Your task to perform on an android device: toggle wifi Image 0: 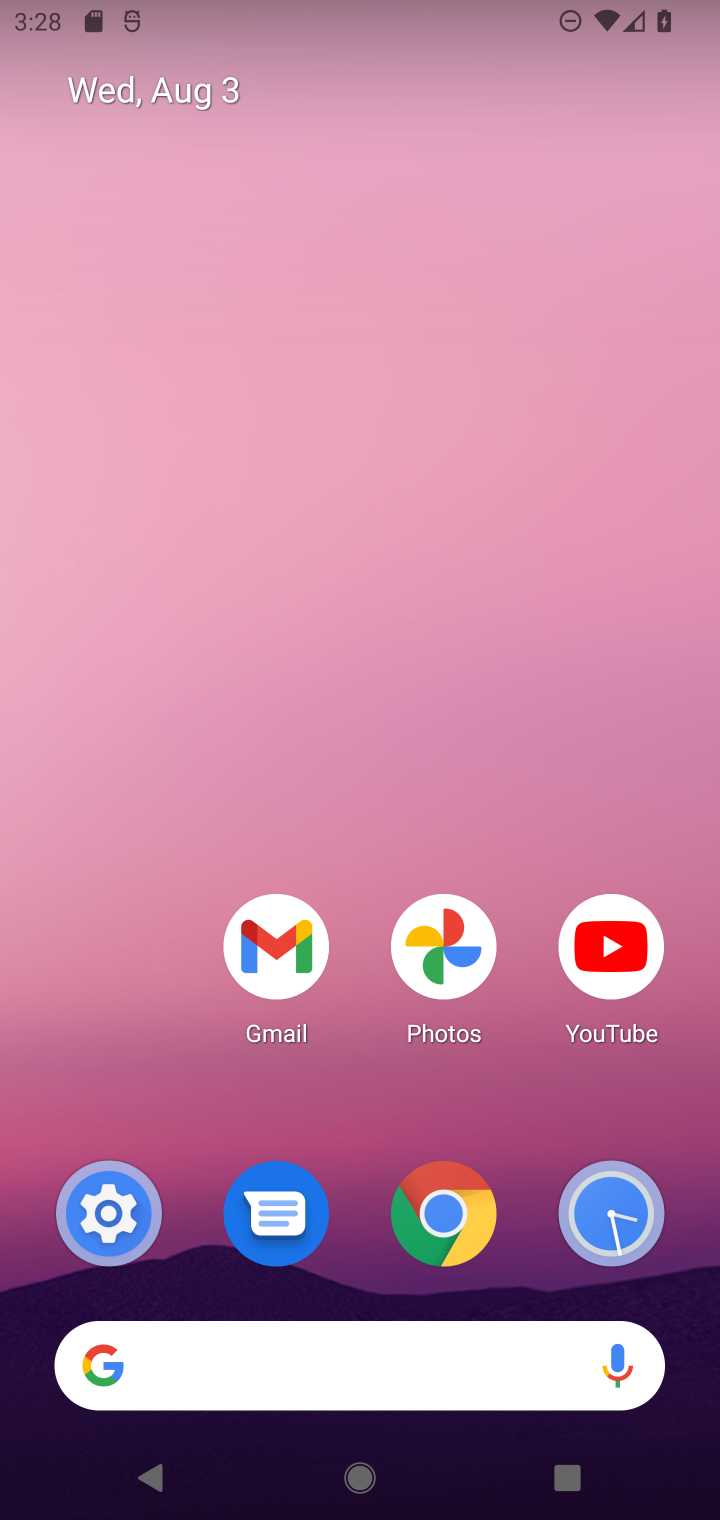
Step 0: drag from (282, 1276) to (353, 924)
Your task to perform on an android device: toggle wifi Image 1: 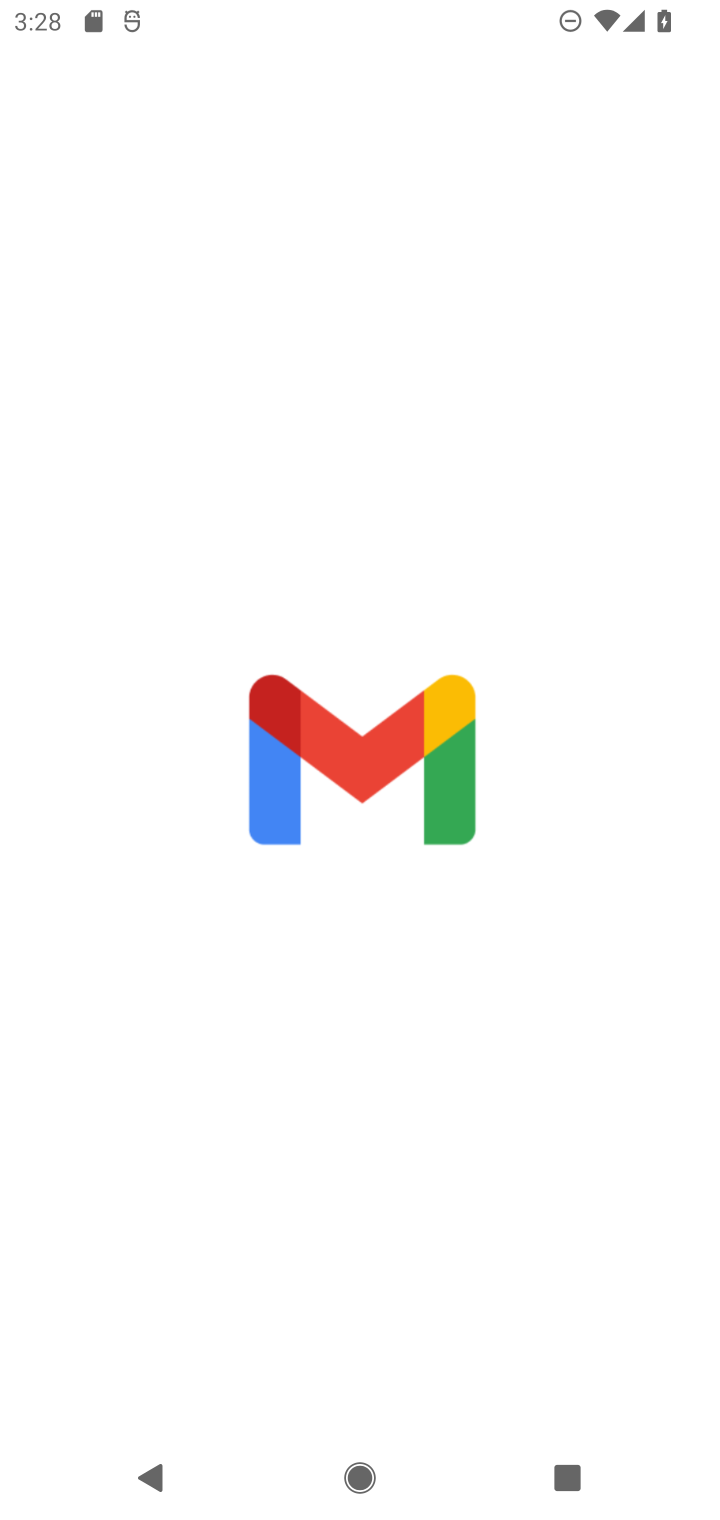
Step 1: press home button
Your task to perform on an android device: toggle wifi Image 2: 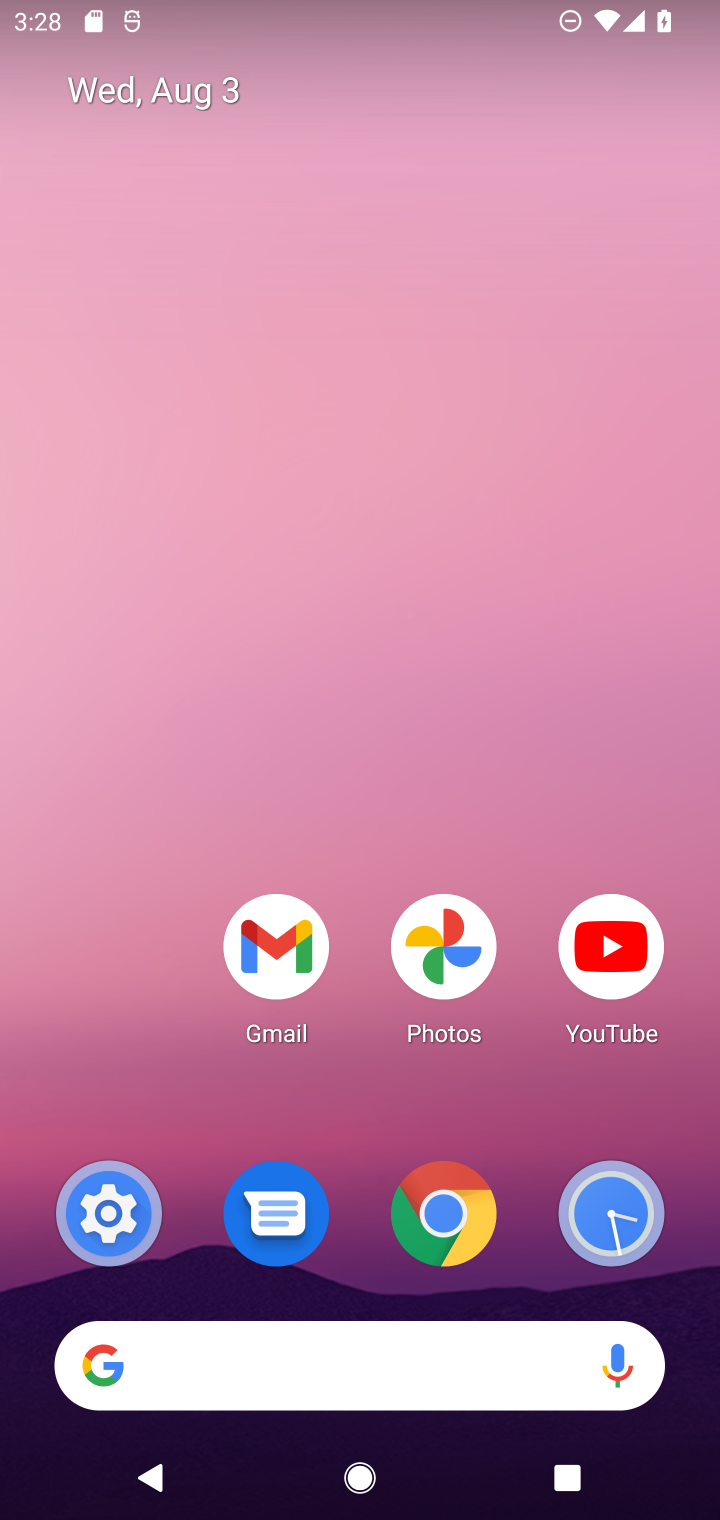
Step 2: drag from (315, 13) to (288, 902)
Your task to perform on an android device: toggle wifi Image 3: 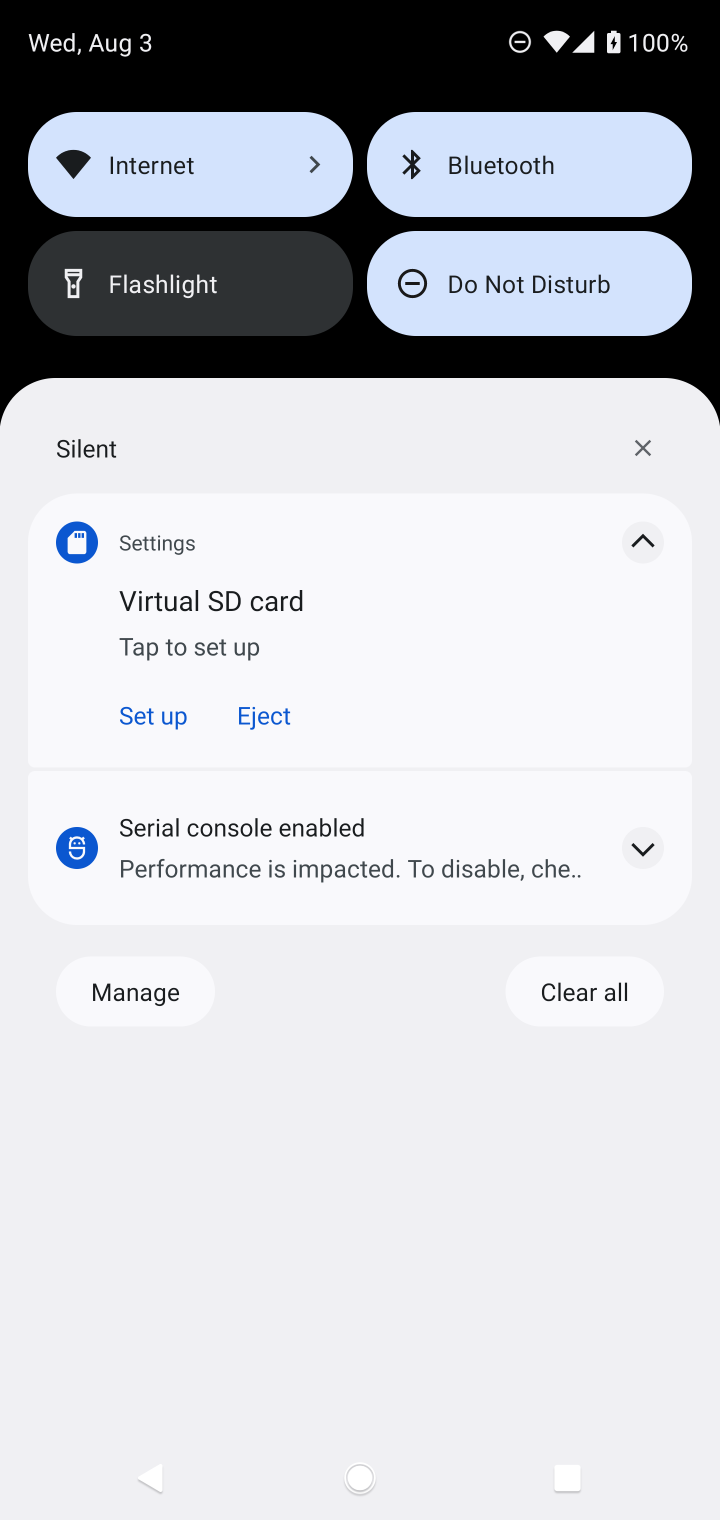
Step 3: drag from (302, 367) to (291, 1103)
Your task to perform on an android device: toggle wifi Image 4: 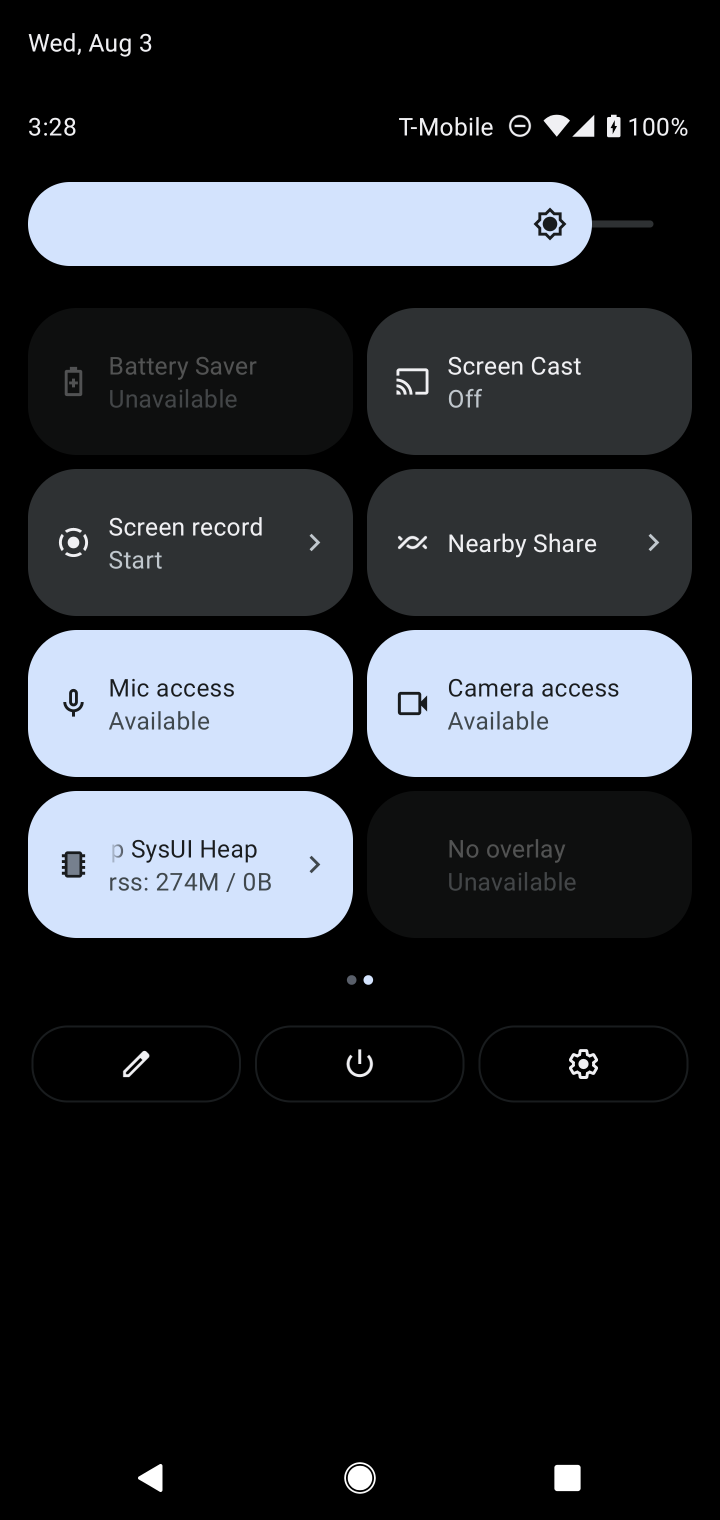
Step 4: drag from (85, 765) to (646, 979)
Your task to perform on an android device: toggle wifi Image 5: 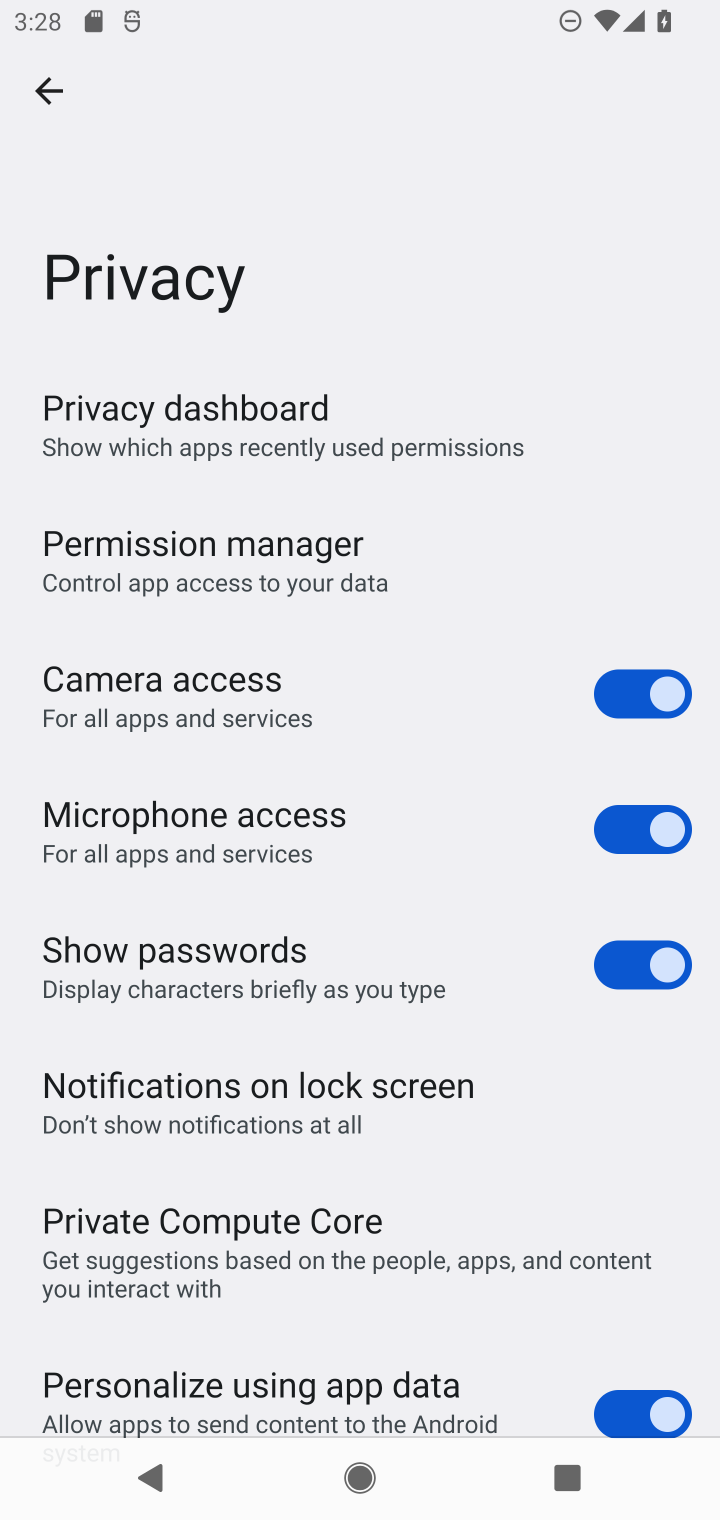
Step 5: click (41, 101)
Your task to perform on an android device: toggle wifi Image 6: 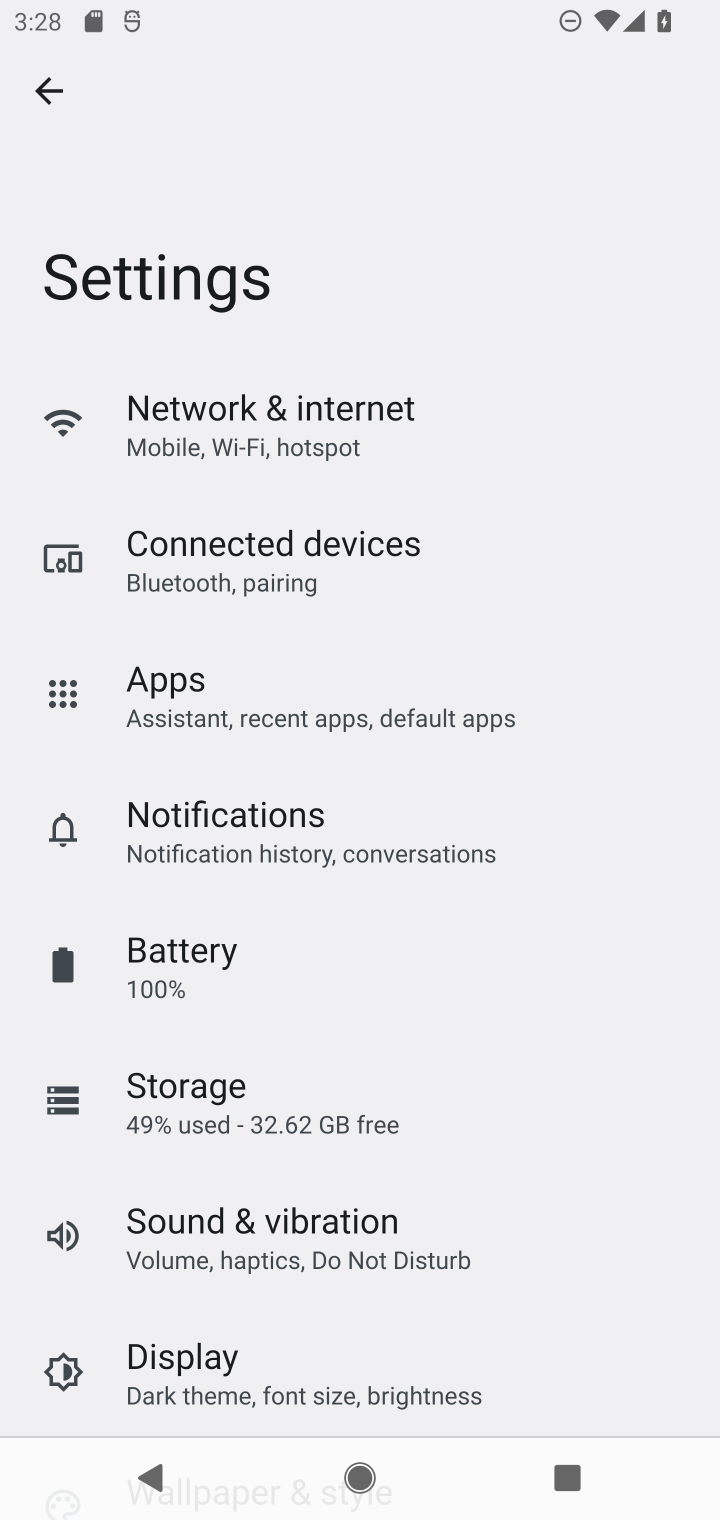
Step 6: click (339, 401)
Your task to perform on an android device: toggle wifi Image 7: 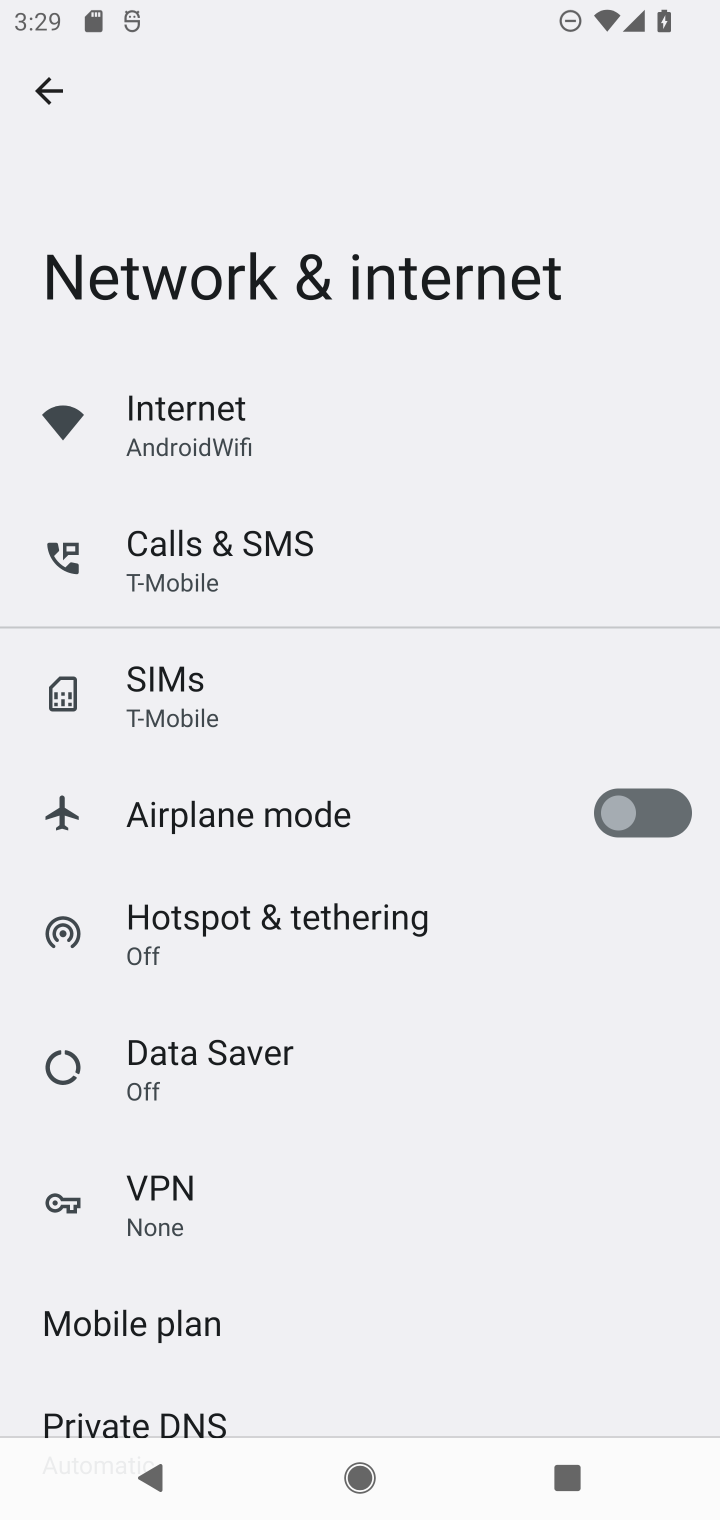
Step 7: press home button
Your task to perform on an android device: toggle wifi Image 8: 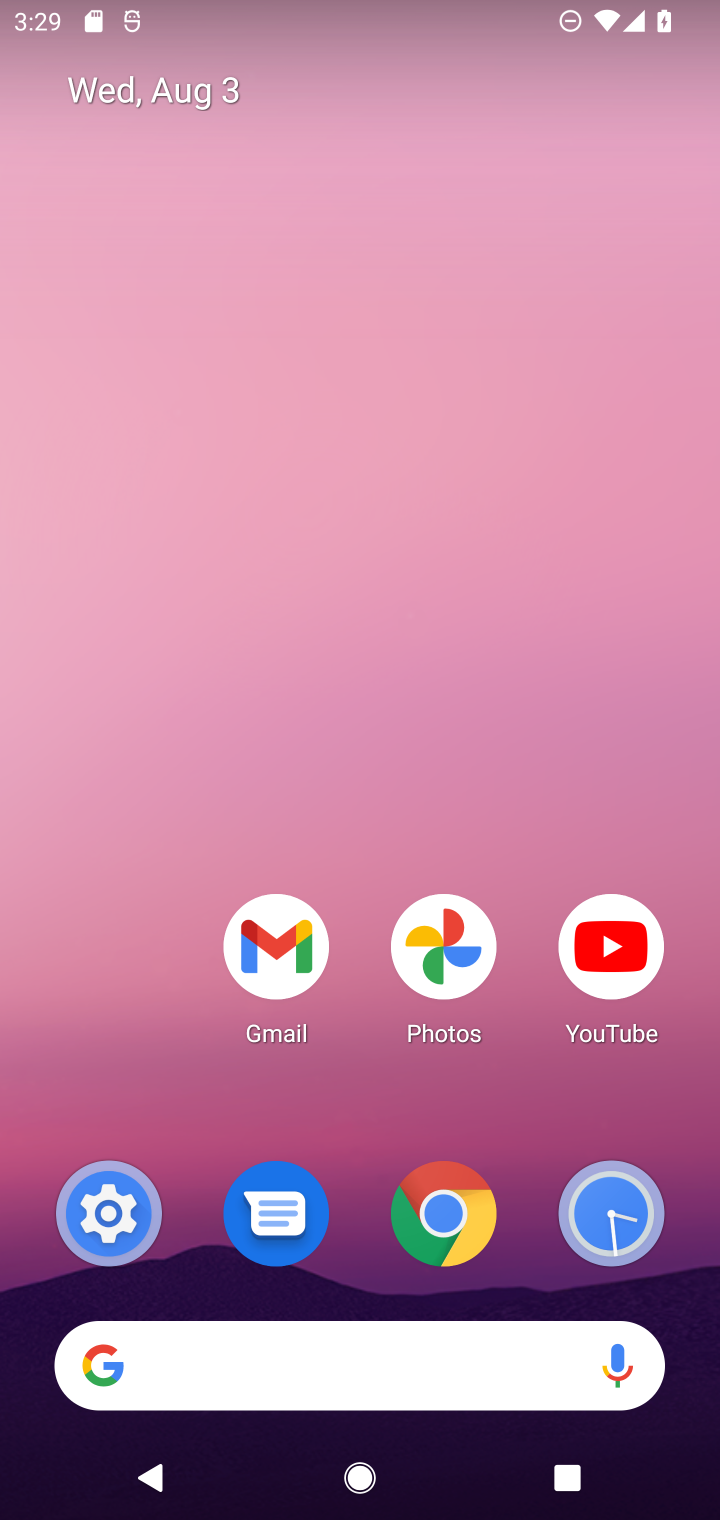
Step 8: drag from (345, 1276) to (359, 265)
Your task to perform on an android device: toggle wifi Image 9: 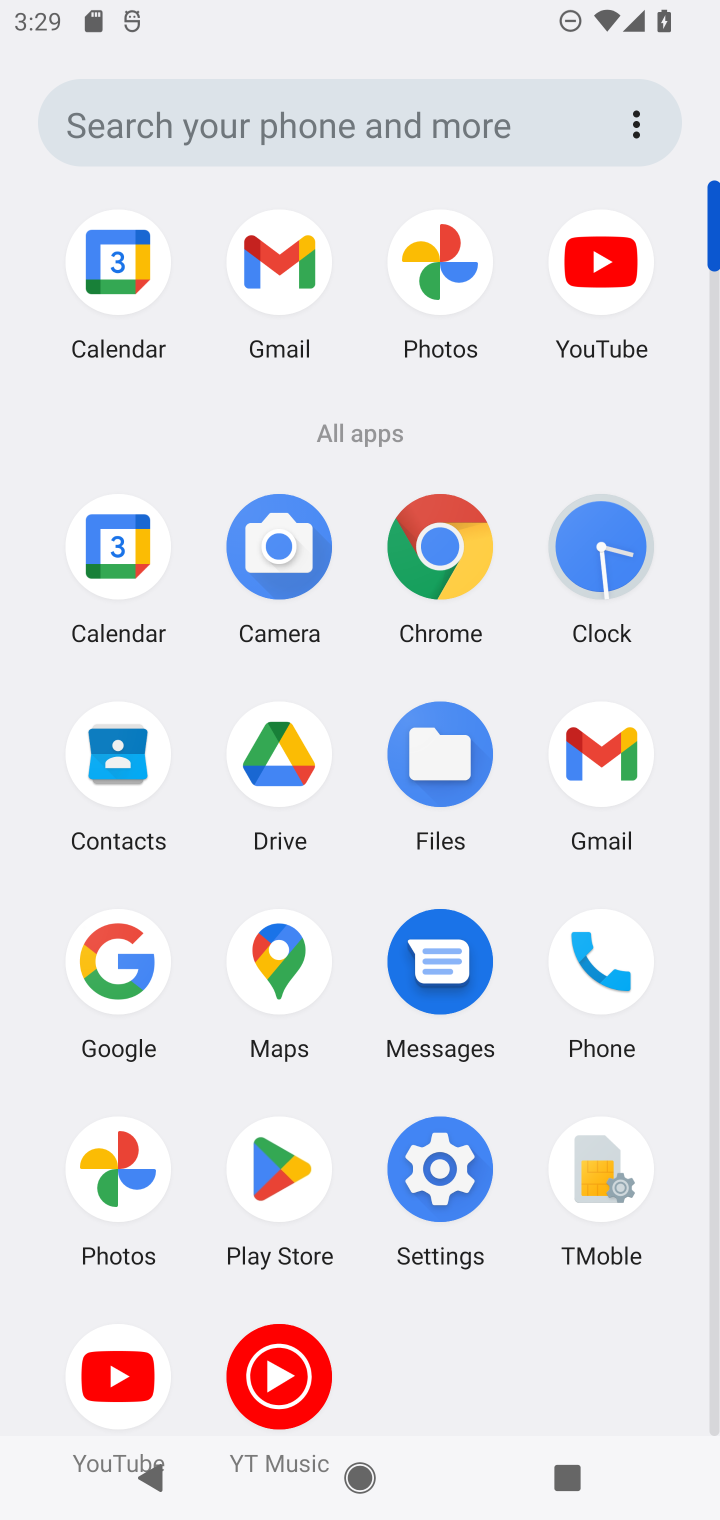
Step 9: click (443, 1167)
Your task to perform on an android device: toggle wifi Image 10: 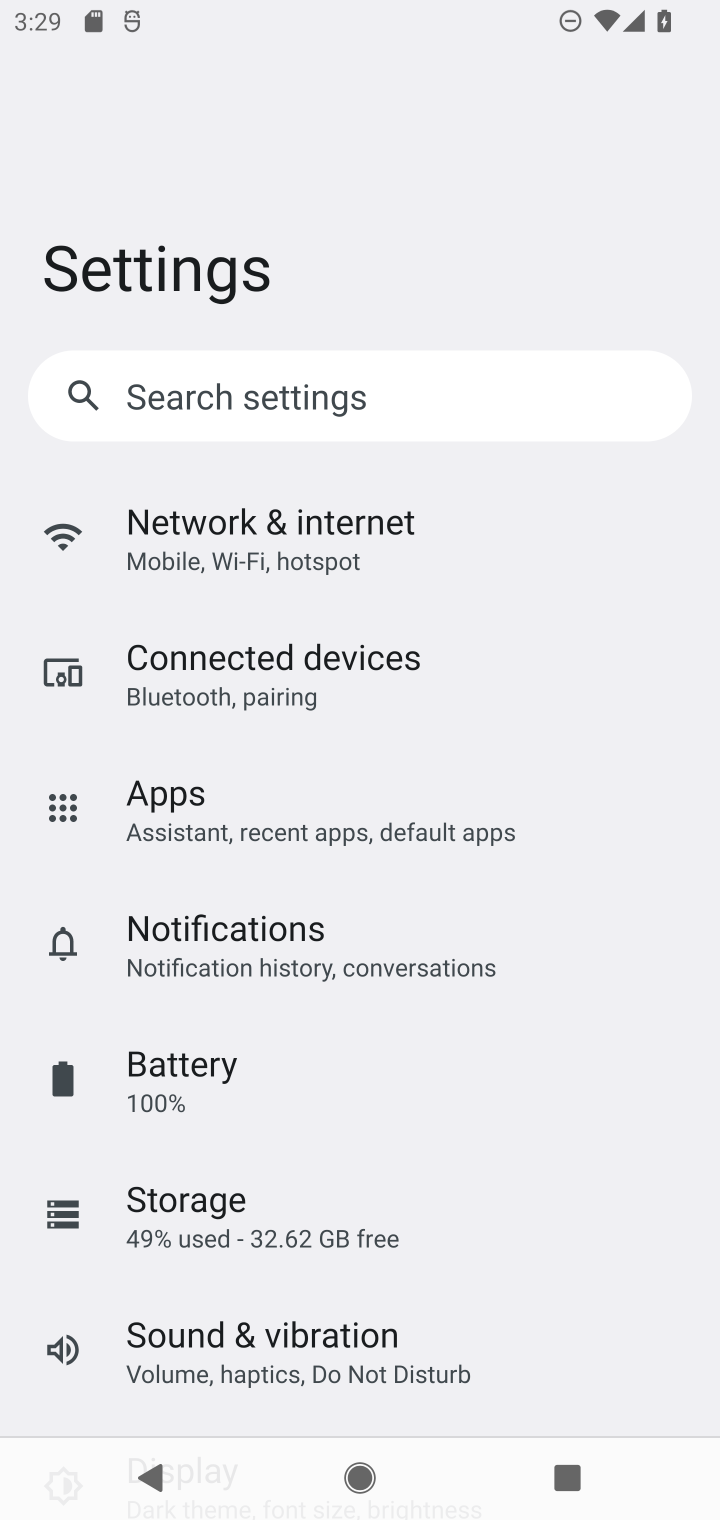
Step 10: click (218, 518)
Your task to perform on an android device: toggle wifi Image 11: 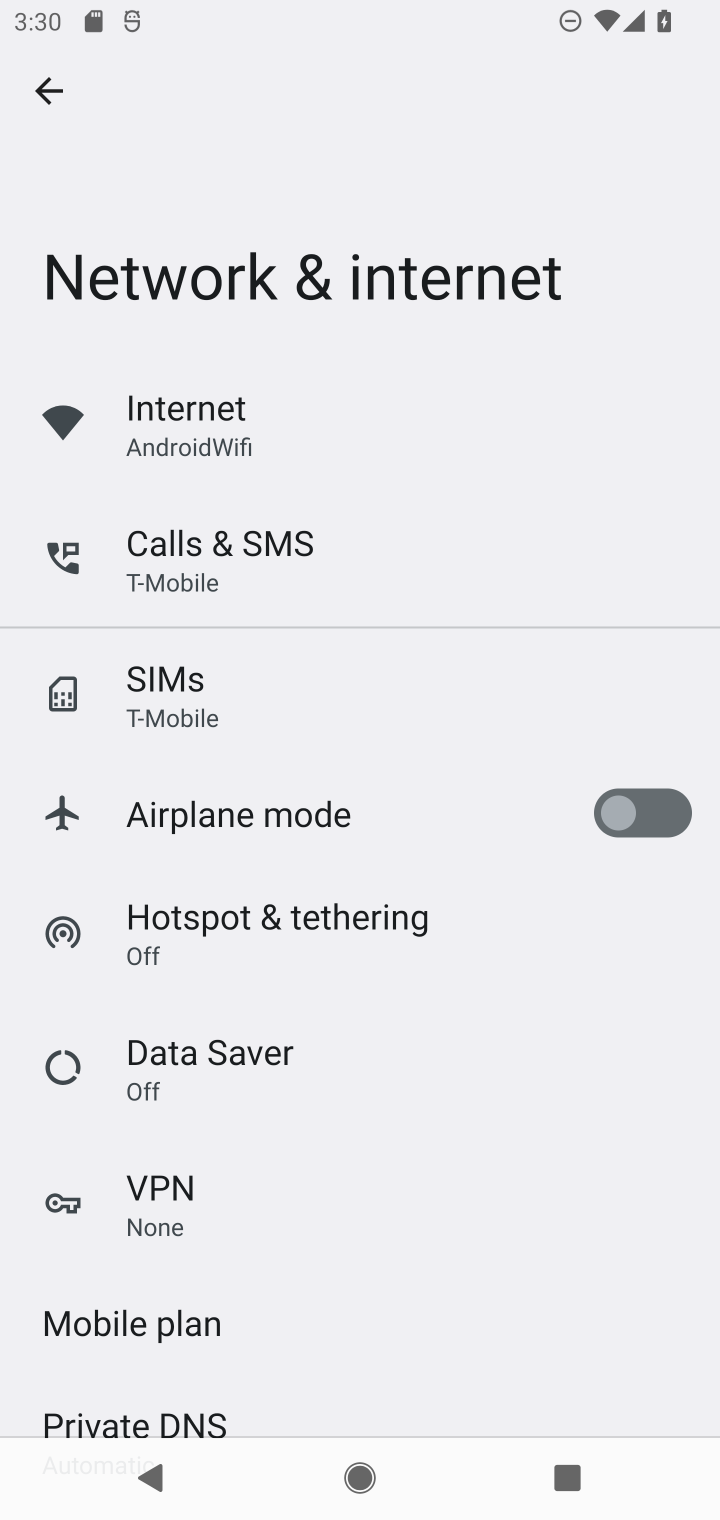
Step 11: drag from (345, 1311) to (490, 201)
Your task to perform on an android device: toggle wifi Image 12: 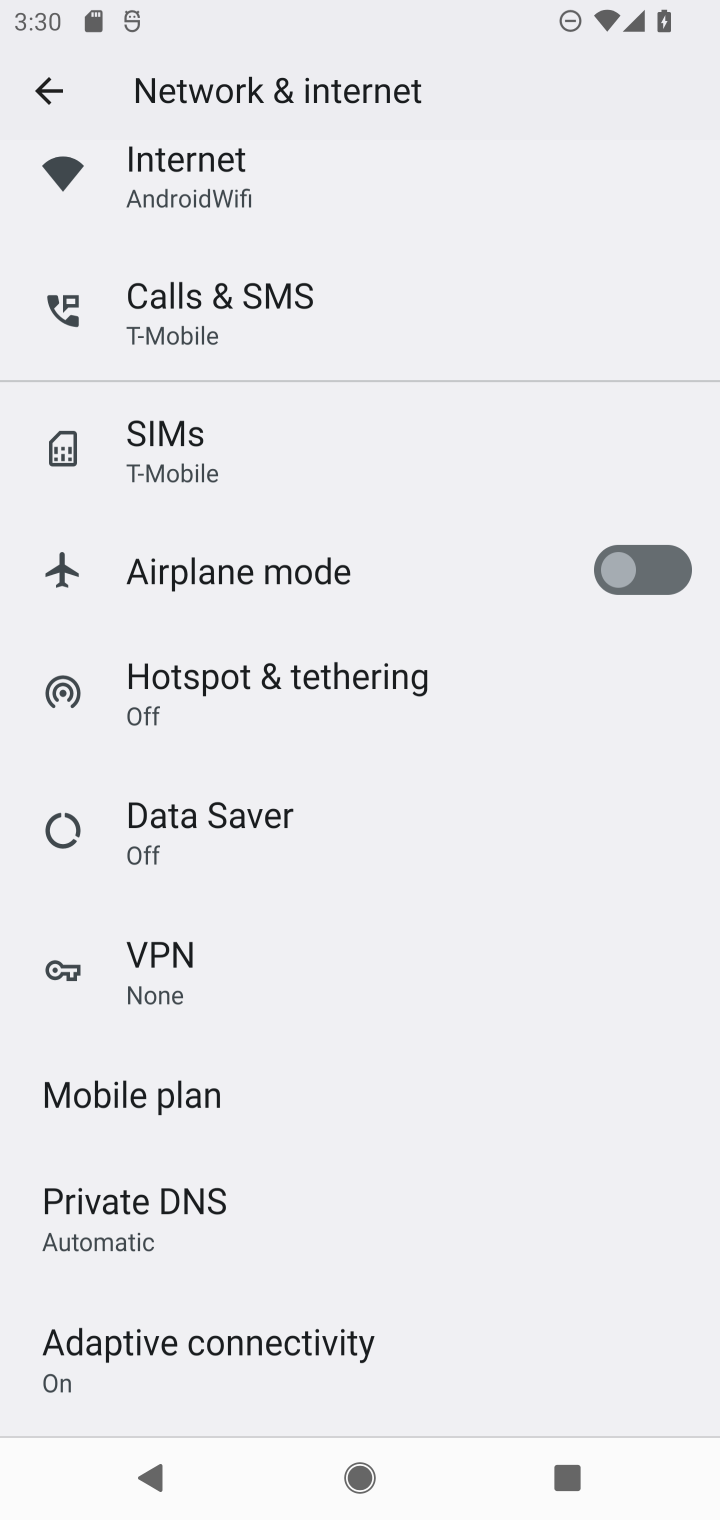
Step 12: drag from (320, 1226) to (312, 478)
Your task to perform on an android device: toggle wifi Image 13: 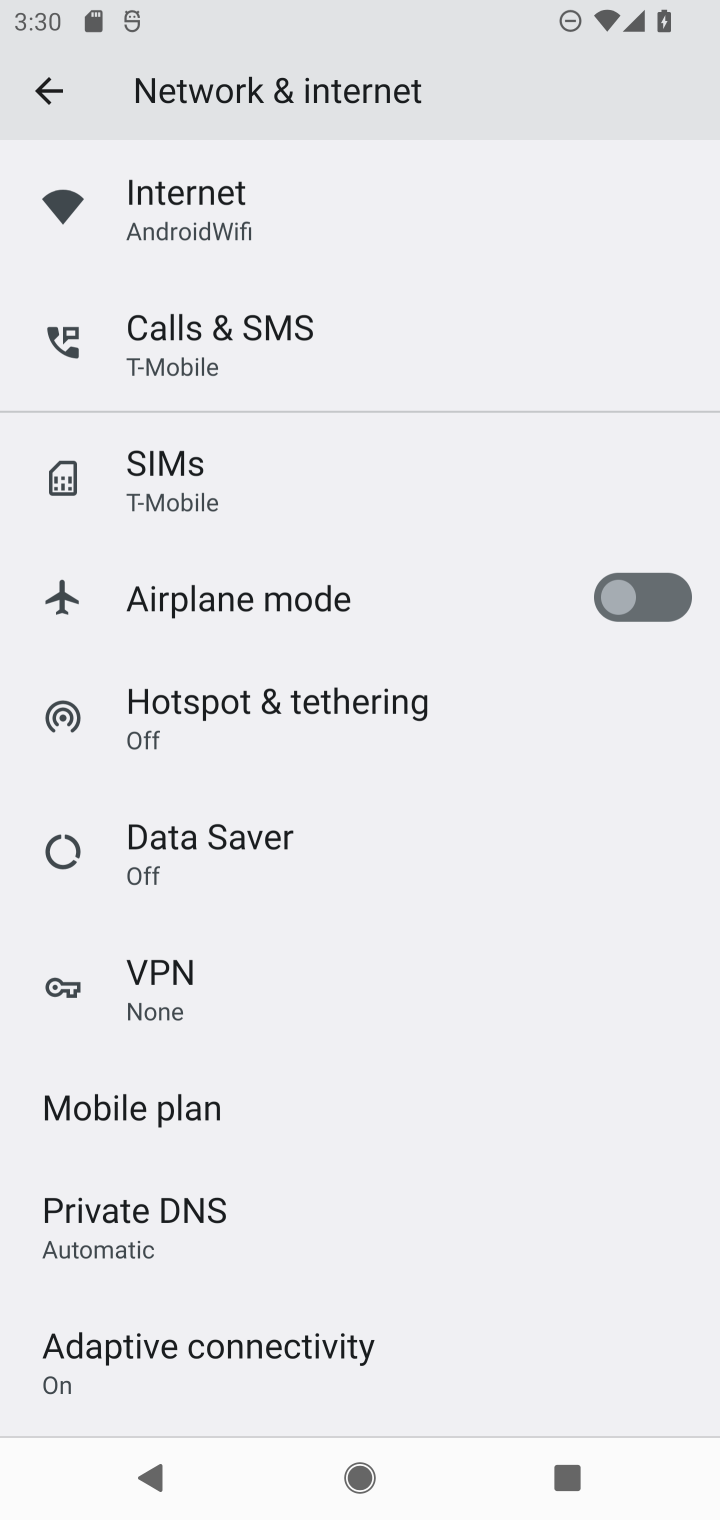
Step 13: drag from (228, 1261) to (376, 593)
Your task to perform on an android device: toggle wifi Image 14: 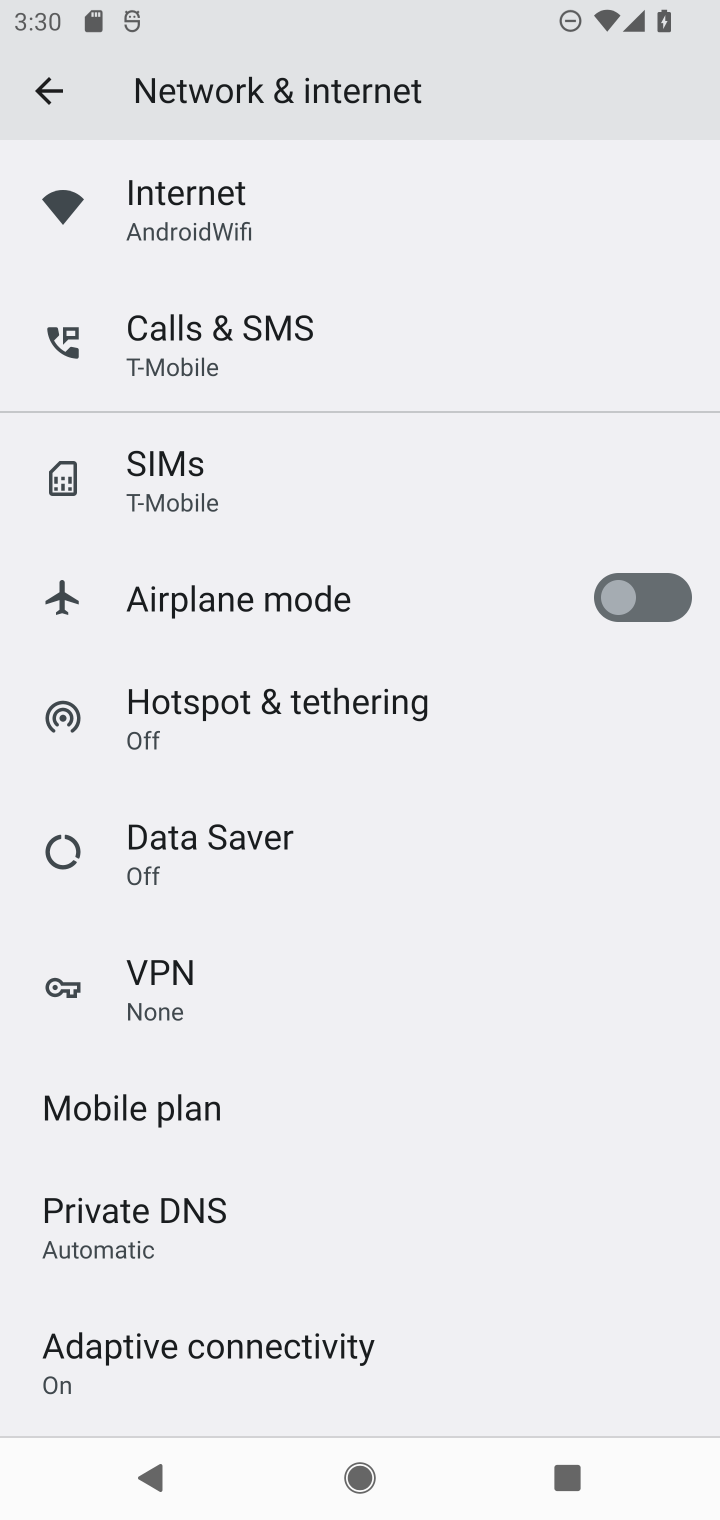
Step 14: drag from (357, 406) to (330, 1380)
Your task to perform on an android device: toggle wifi Image 15: 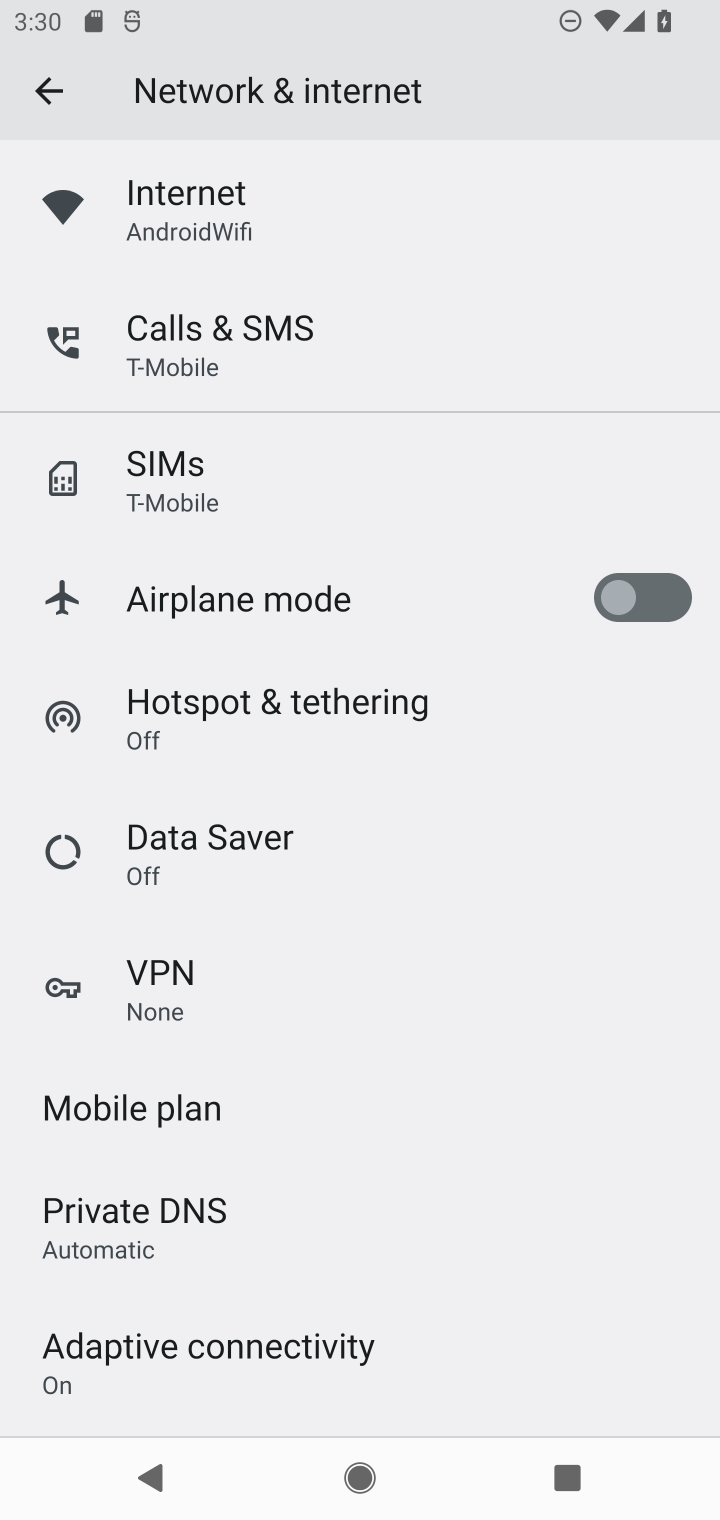
Step 15: drag from (319, 516) to (371, 1420)
Your task to perform on an android device: toggle wifi Image 16: 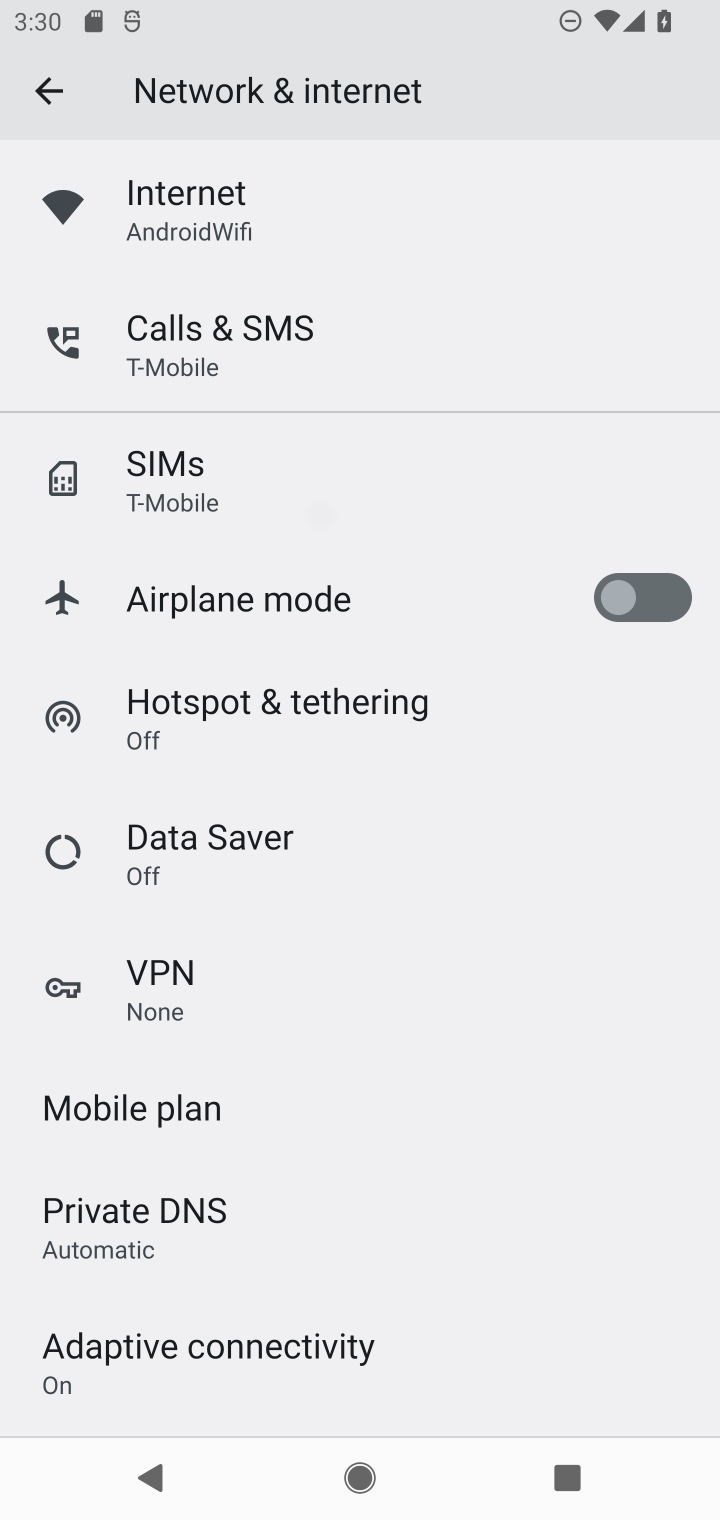
Step 16: drag from (224, 569) to (224, 1053)
Your task to perform on an android device: toggle wifi Image 17: 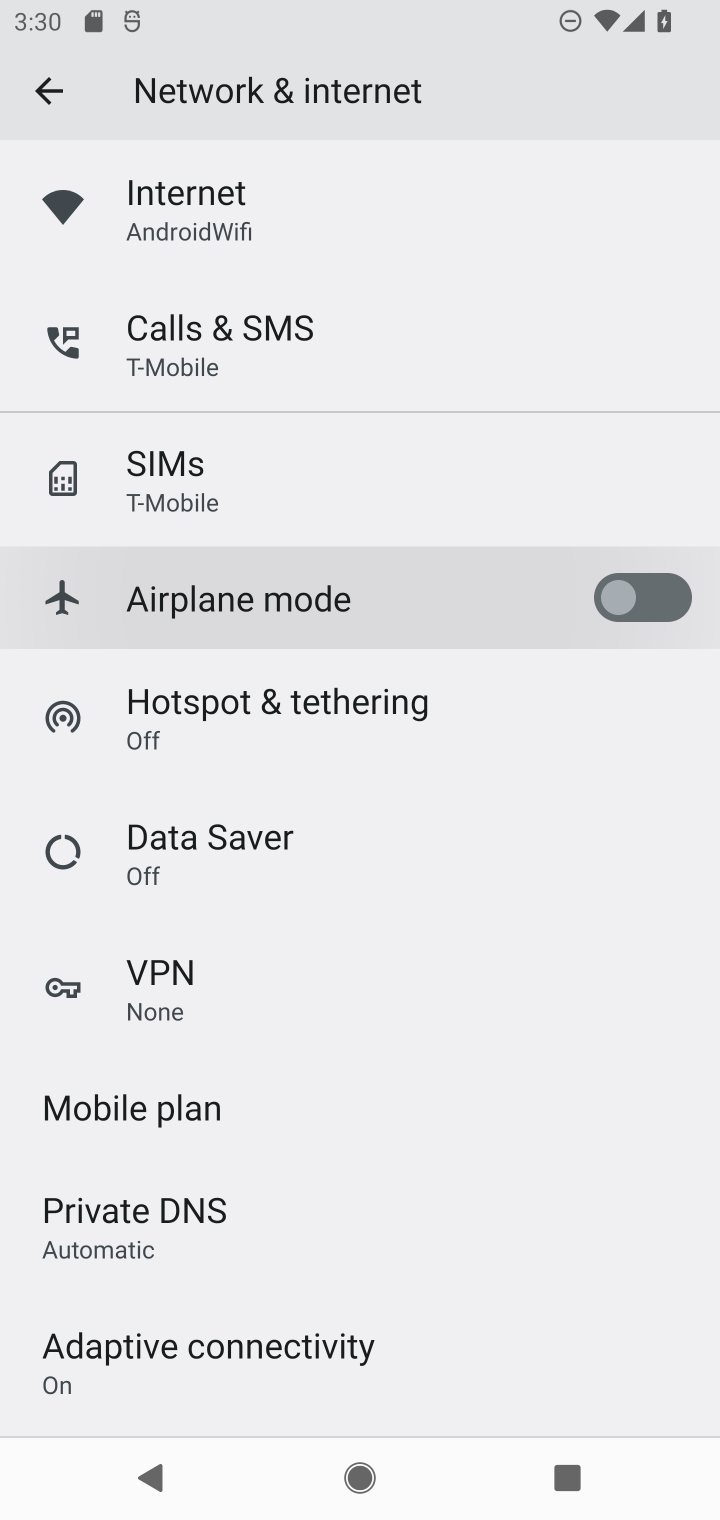
Step 17: drag from (242, 959) to (268, 1312)
Your task to perform on an android device: toggle wifi Image 18: 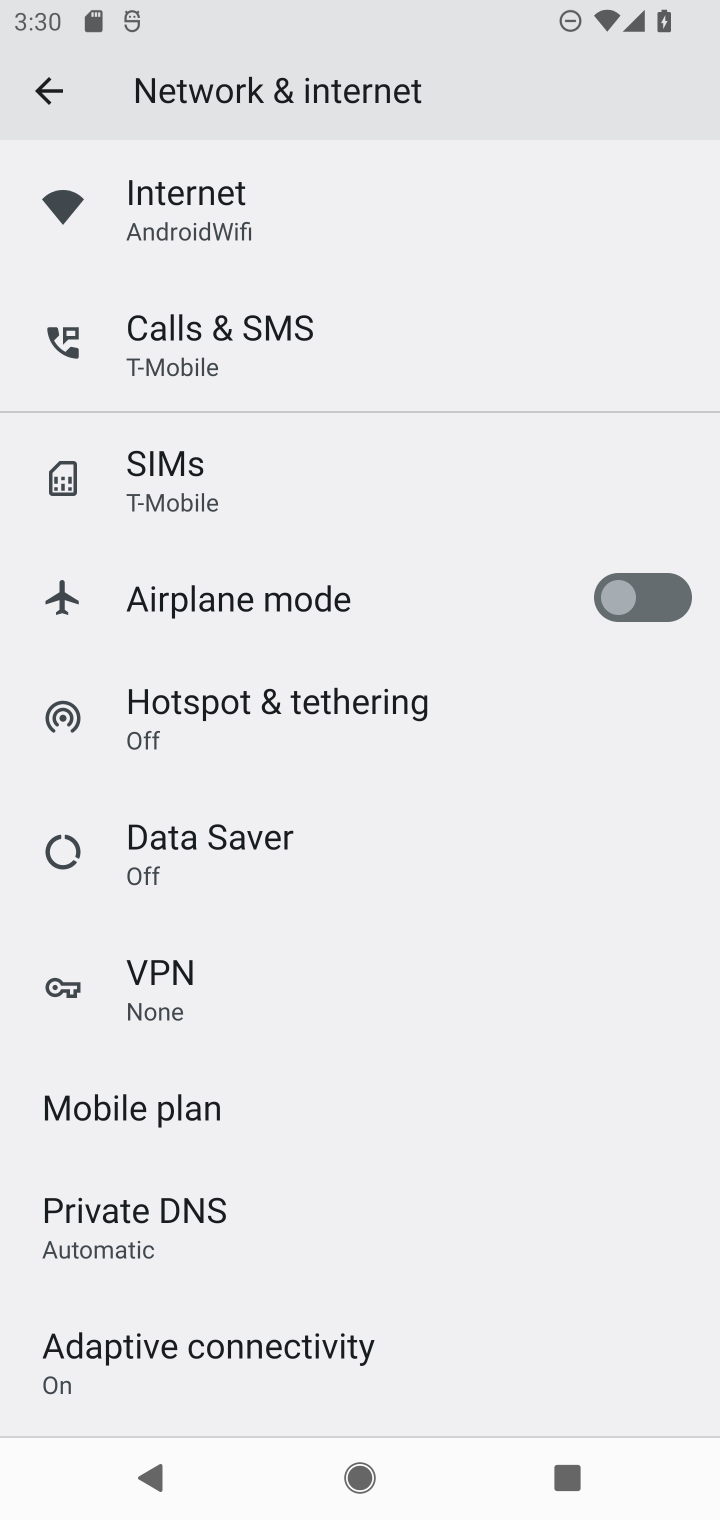
Step 18: drag from (259, 465) to (381, 1264)
Your task to perform on an android device: toggle wifi Image 19: 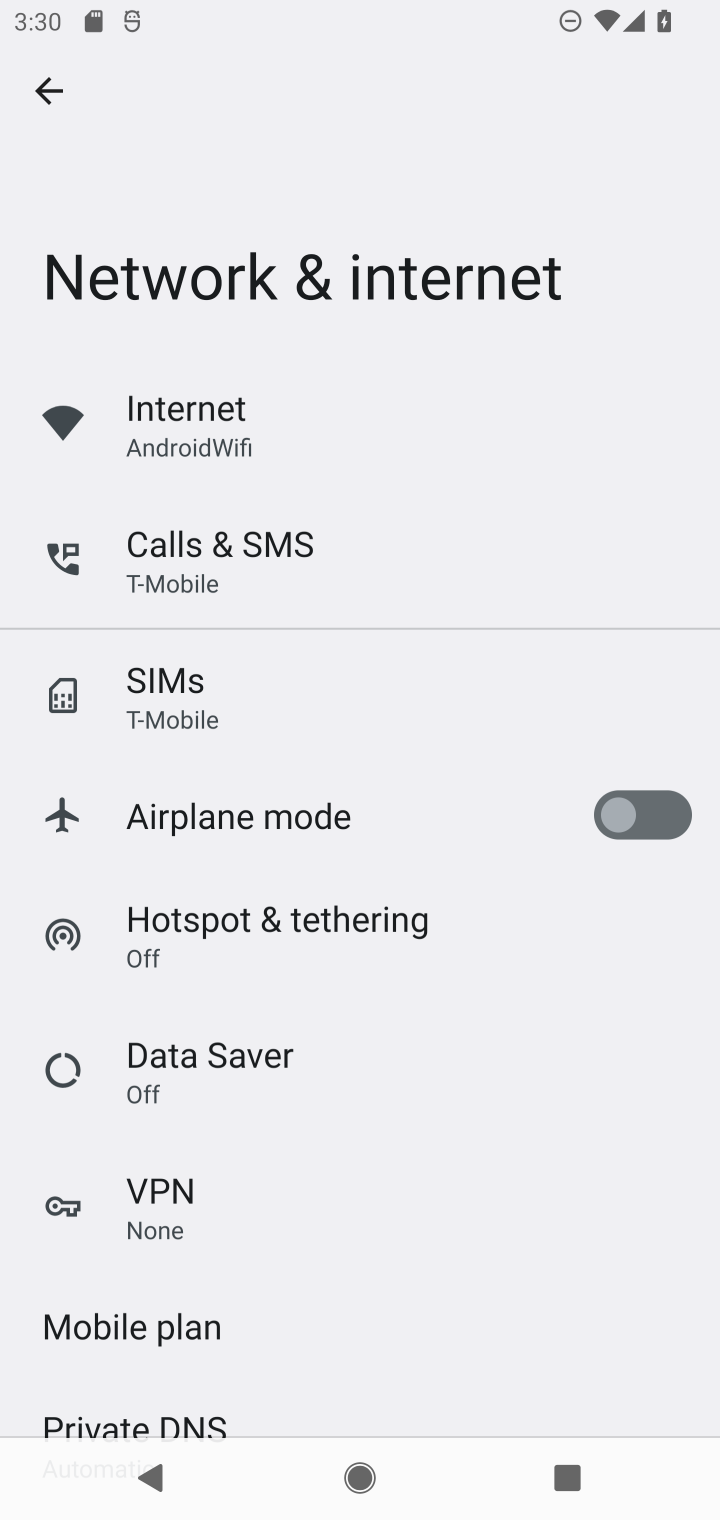
Step 19: click (164, 188)
Your task to perform on an android device: toggle wifi Image 20: 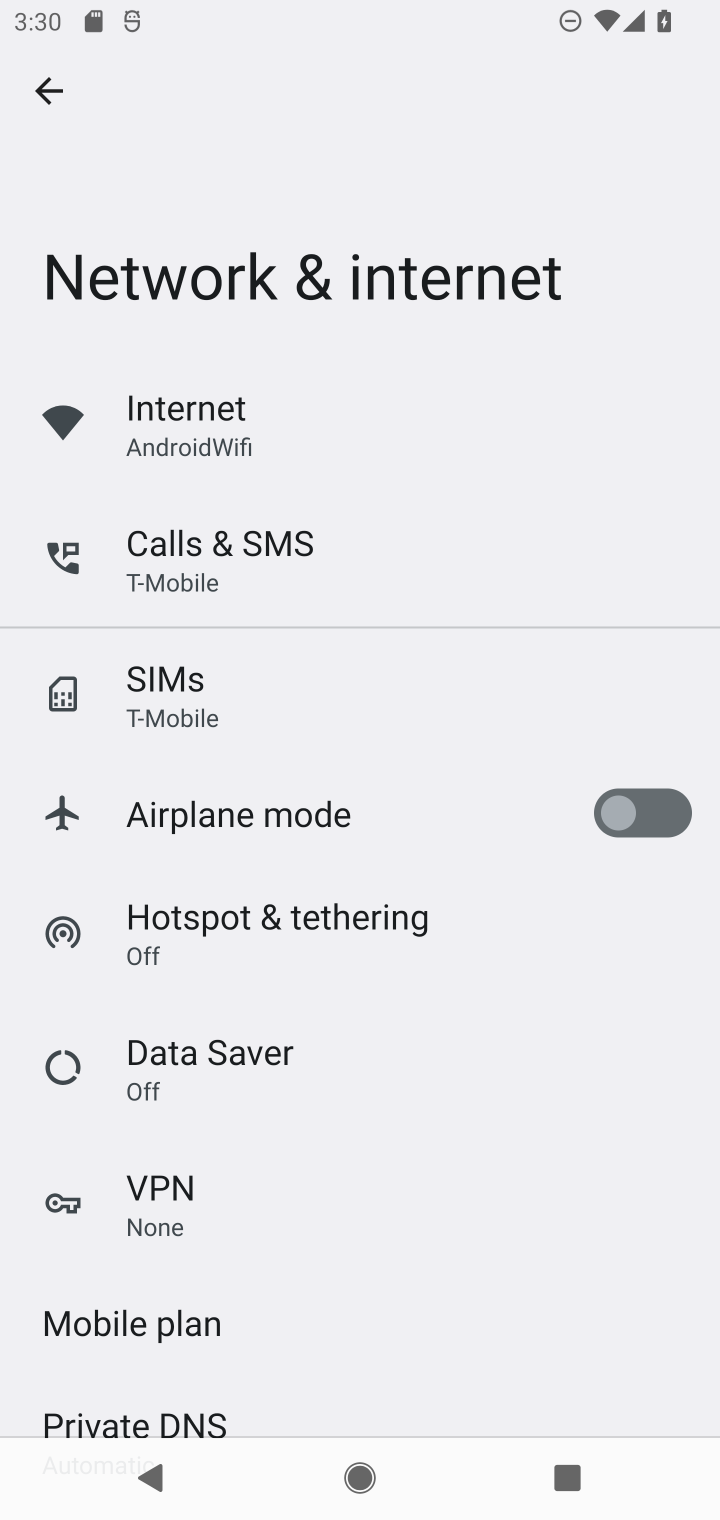
Step 20: click (217, 404)
Your task to perform on an android device: toggle wifi Image 21: 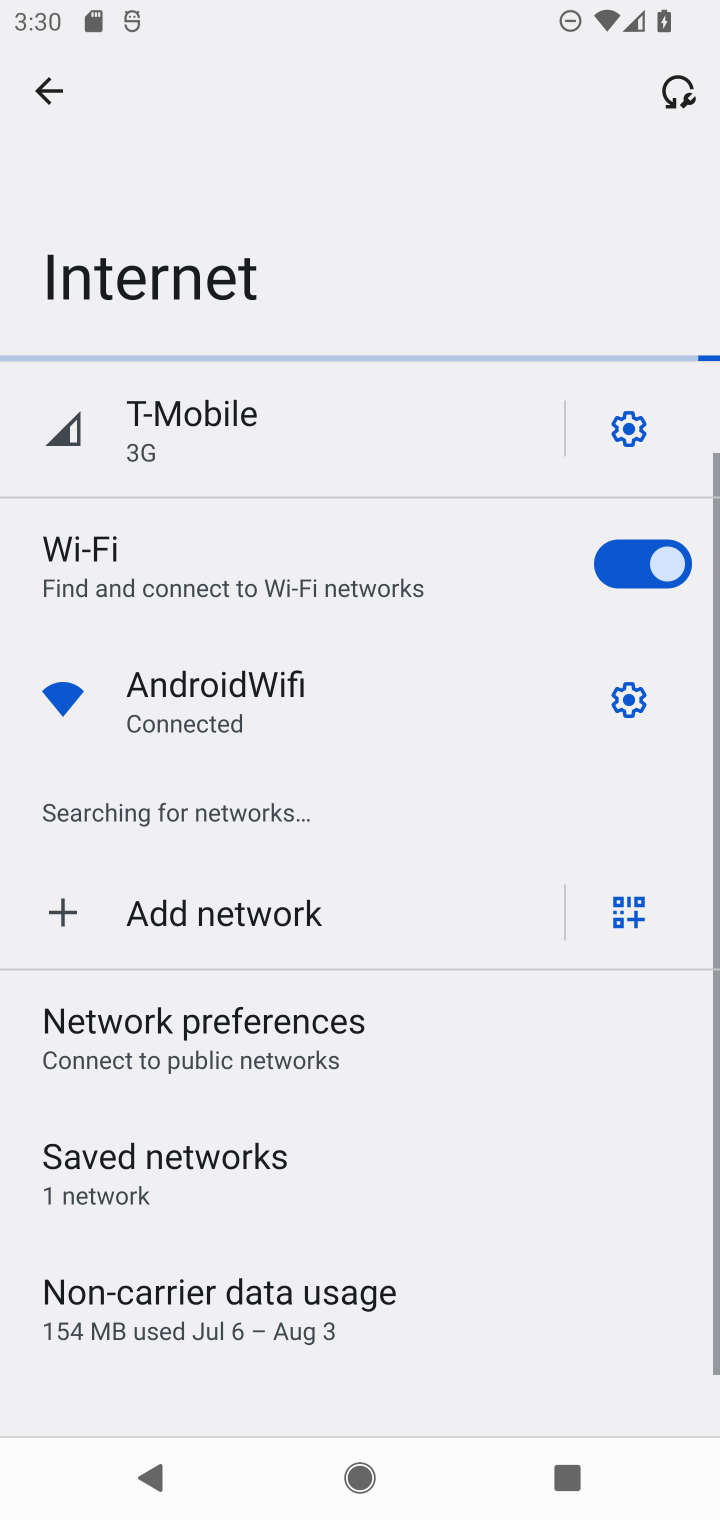
Step 21: click (608, 547)
Your task to perform on an android device: toggle wifi Image 22: 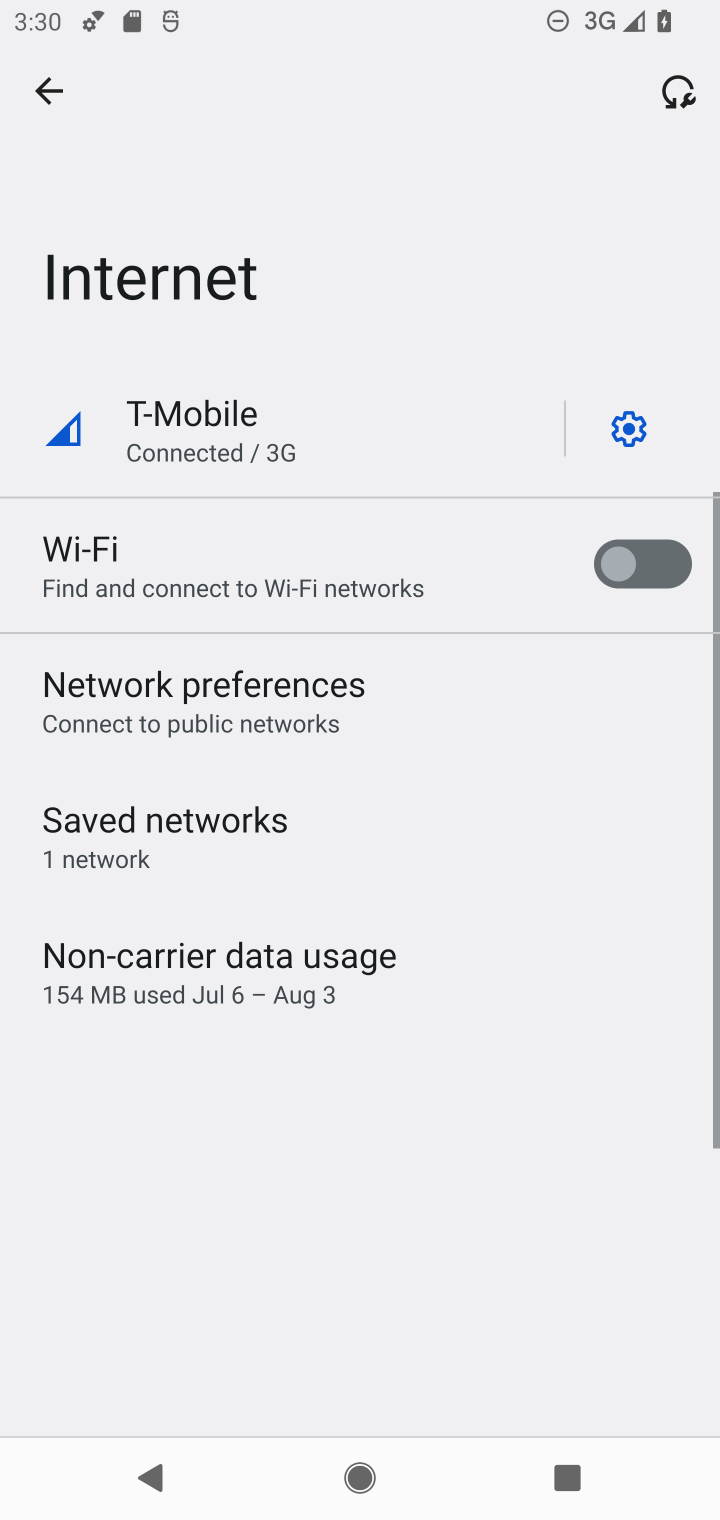
Step 22: task complete